Your task to perform on an android device: Open Google Chrome and click the shortcut for Amazon.com Image 0: 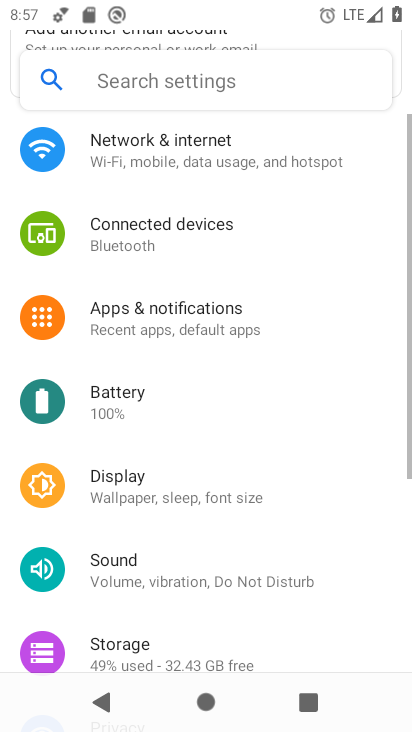
Step 0: press home button
Your task to perform on an android device: Open Google Chrome and click the shortcut for Amazon.com Image 1: 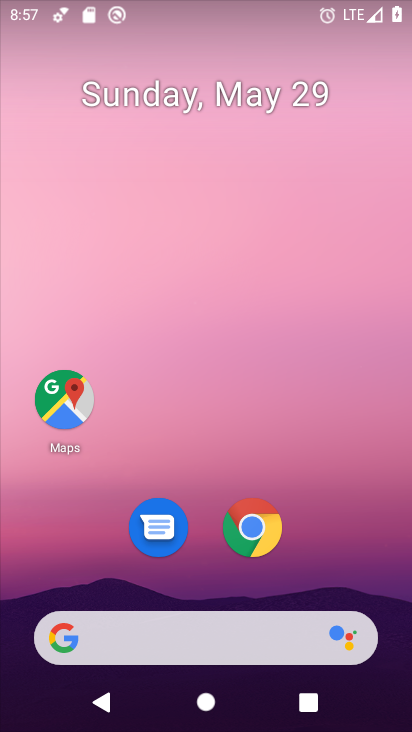
Step 1: click (248, 521)
Your task to perform on an android device: Open Google Chrome and click the shortcut for Amazon.com Image 2: 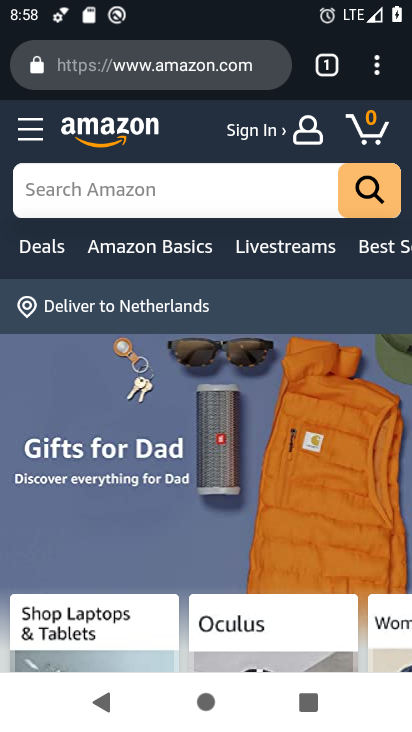
Step 2: task complete